Your task to perform on an android device: What is the capital of China? Image 0: 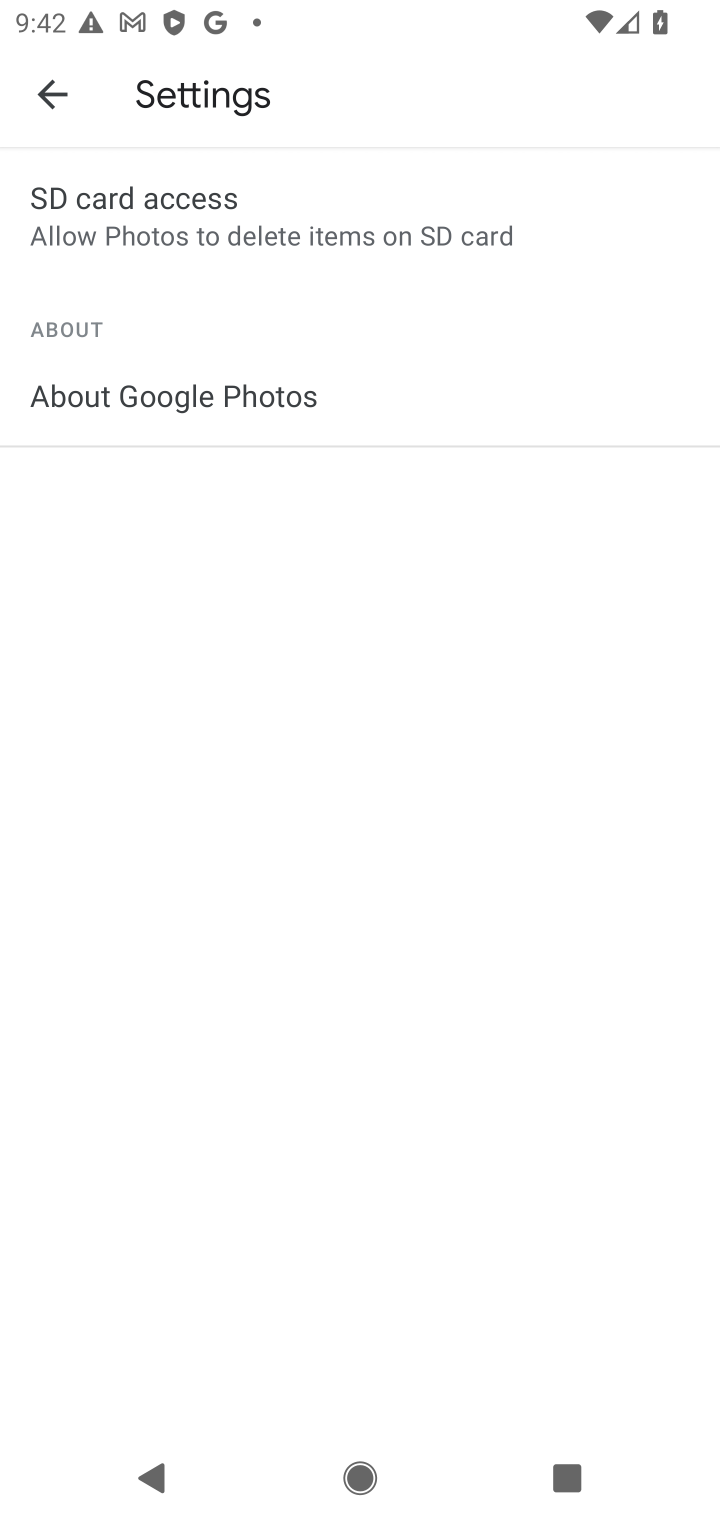
Step 0: press home button
Your task to perform on an android device: What is the capital of China? Image 1: 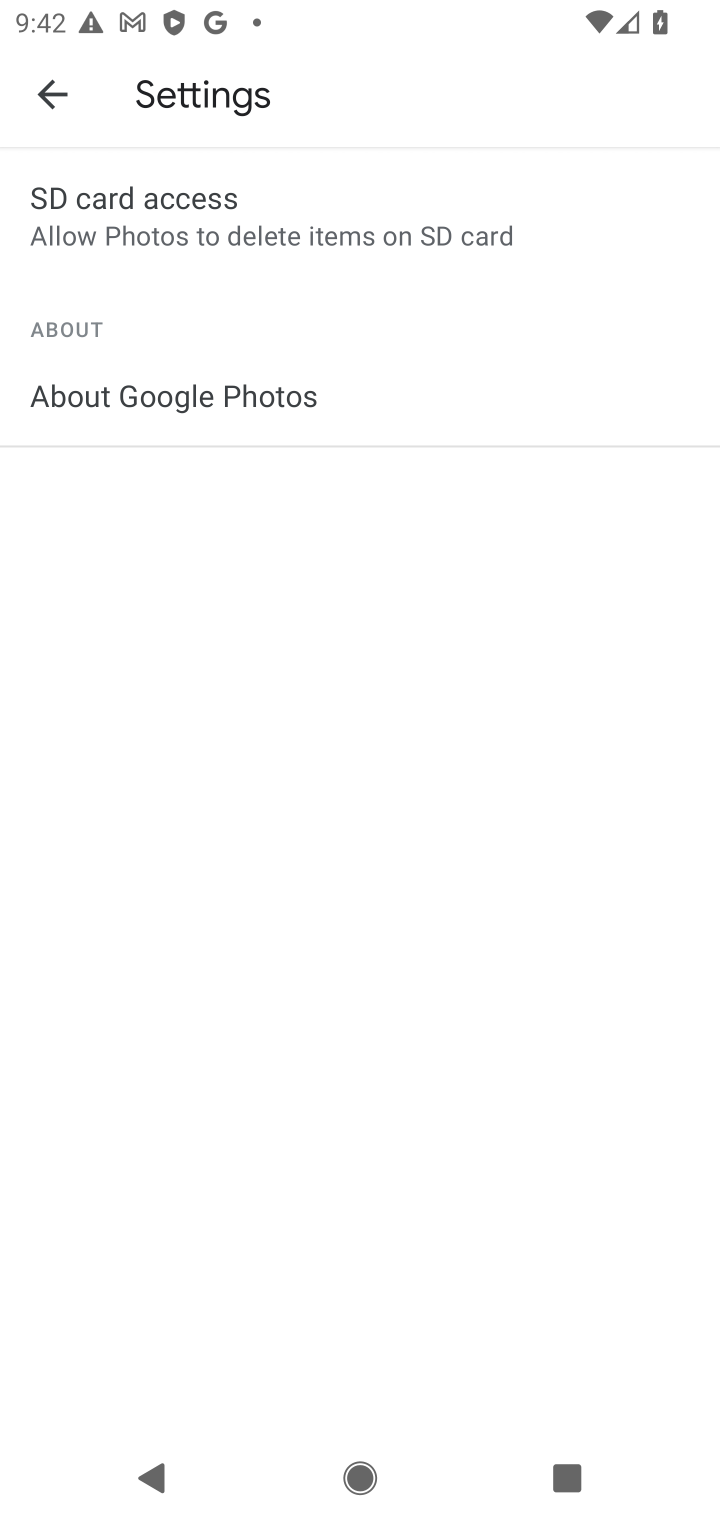
Step 1: press home button
Your task to perform on an android device: What is the capital of China? Image 2: 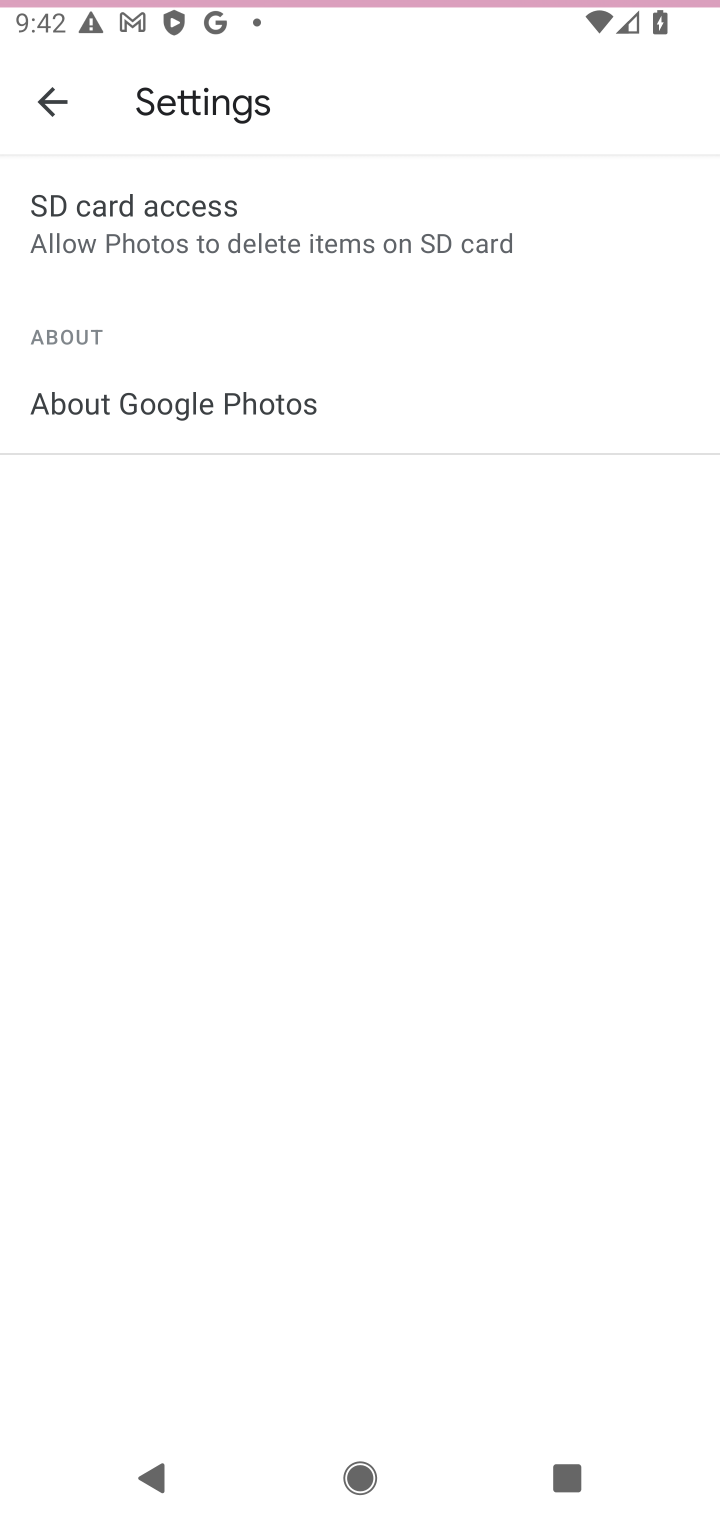
Step 2: press home button
Your task to perform on an android device: What is the capital of China? Image 3: 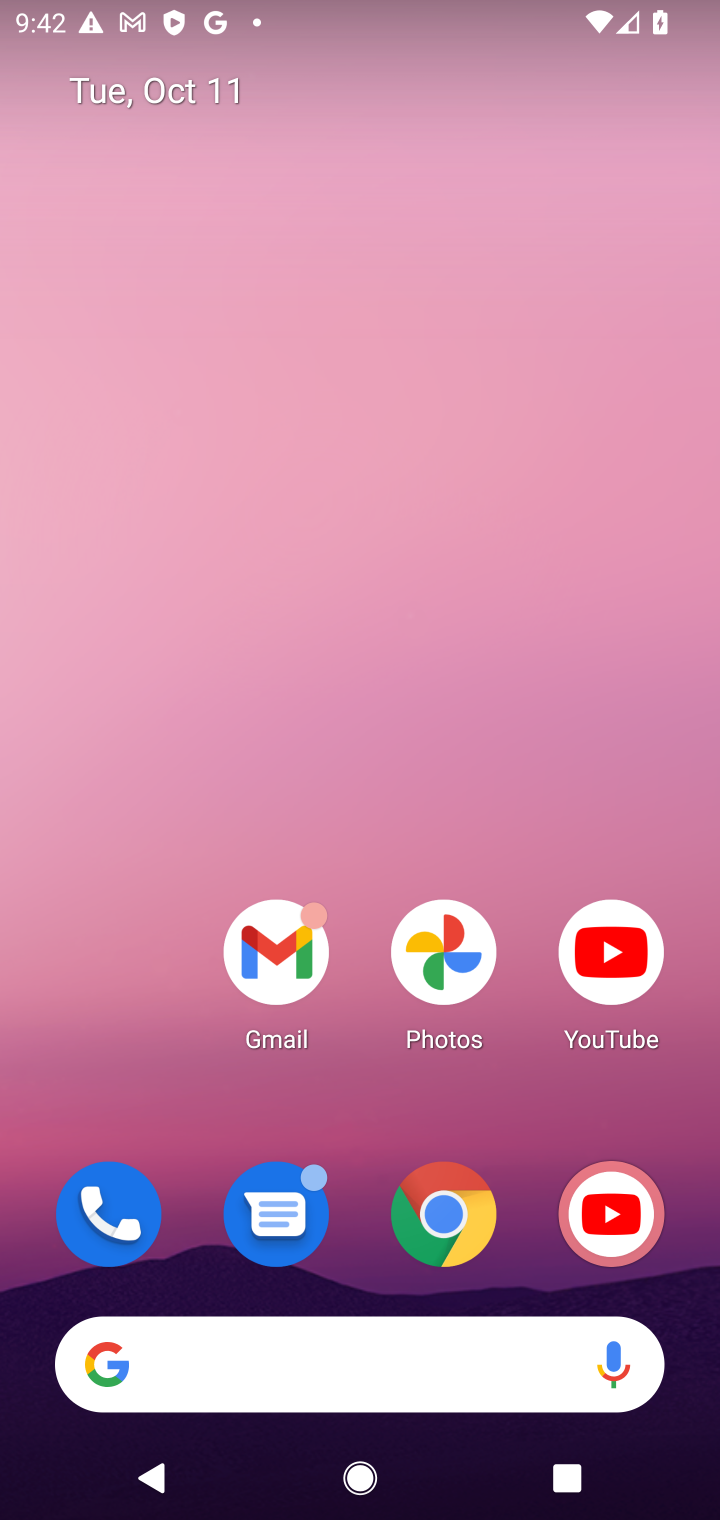
Step 3: drag from (528, 1106) to (532, 123)
Your task to perform on an android device: What is the capital of China? Image 4: 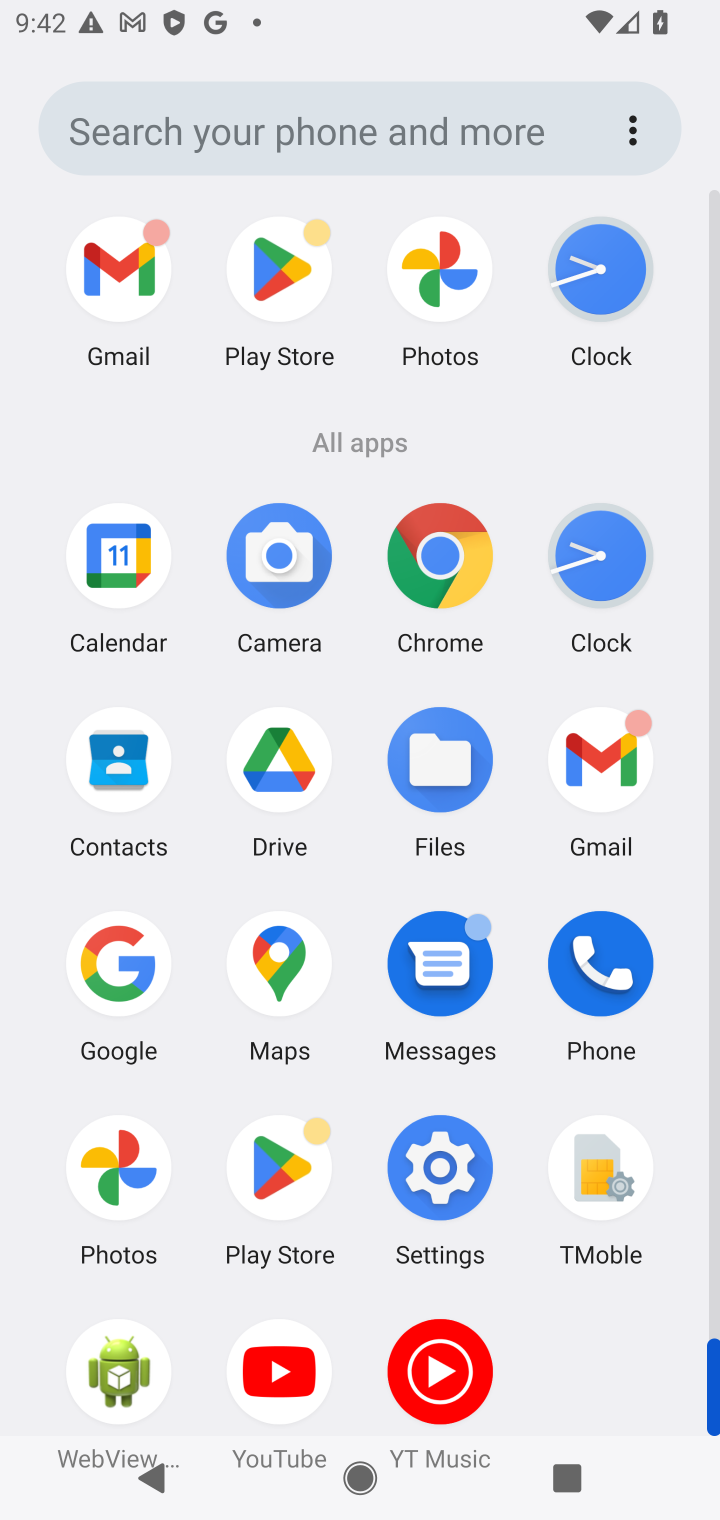
Step 4: click (433, 556)
Your task to perform on an android device: What is the capital of China? Image 5: 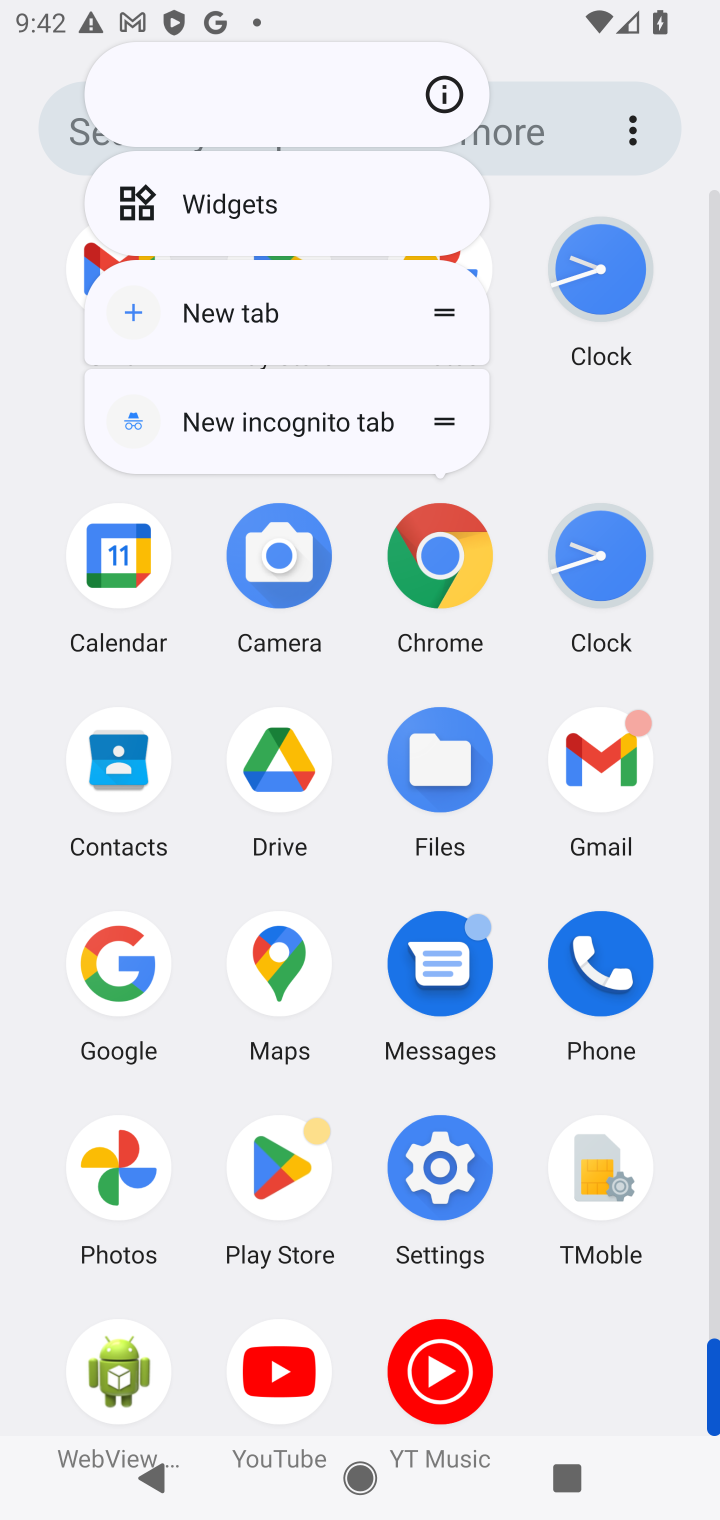
Step 5: click (437, 558)
Your task to perform on an android device: What is the capital of China? Image 6: 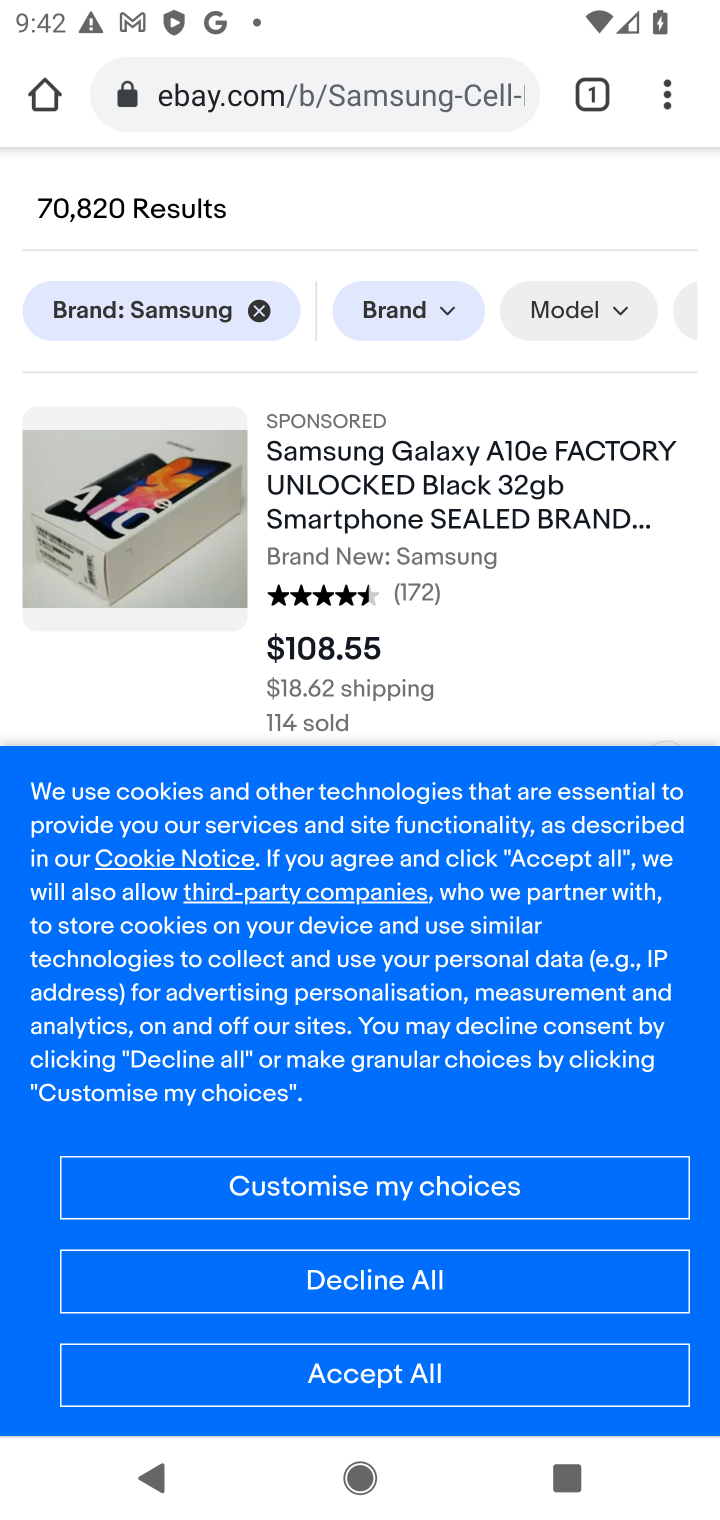
Step 6: click (341, 81)
Your task to perform on an android device: What is the capital of China? Image 7: 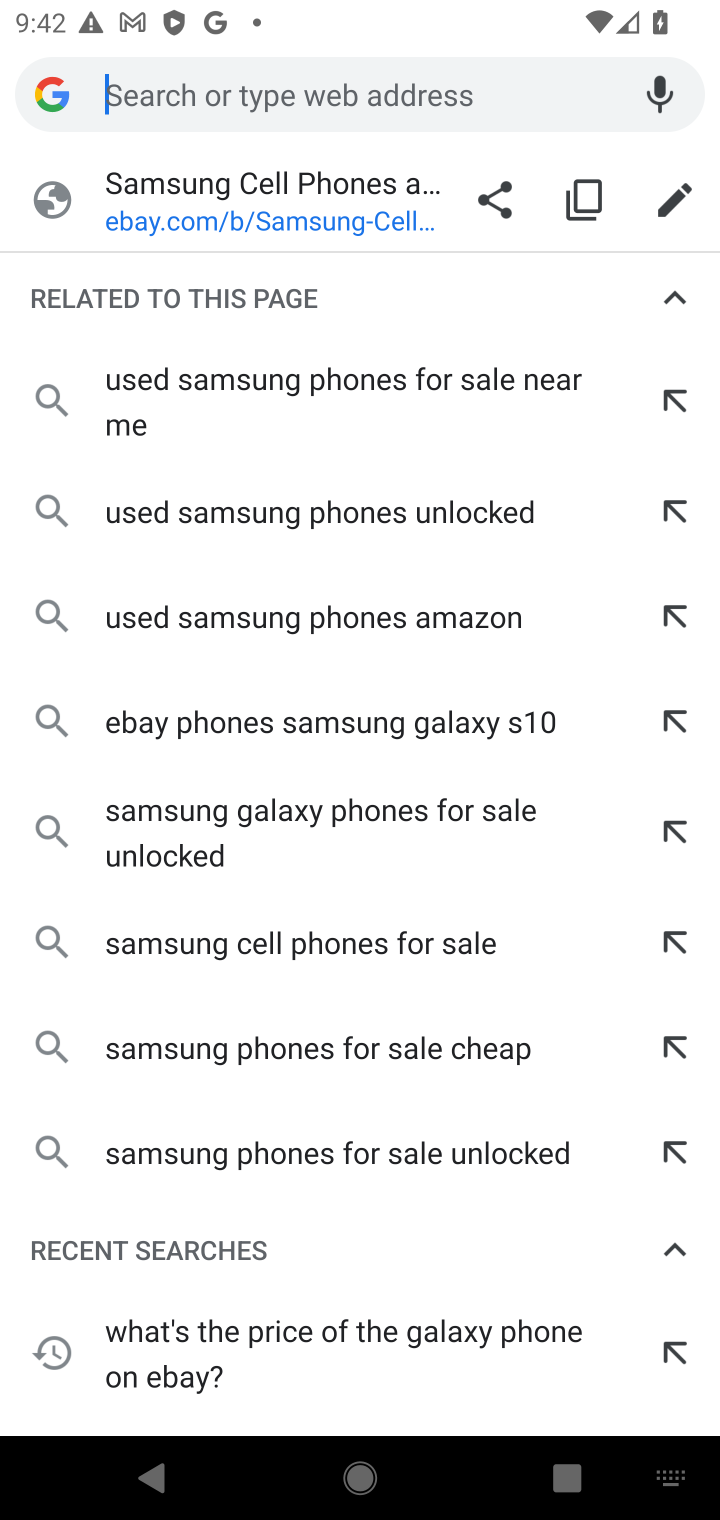
Step 7: type "What is the capital of China?"
Your task to perform on an android device: What is the capital of China? Image 8: 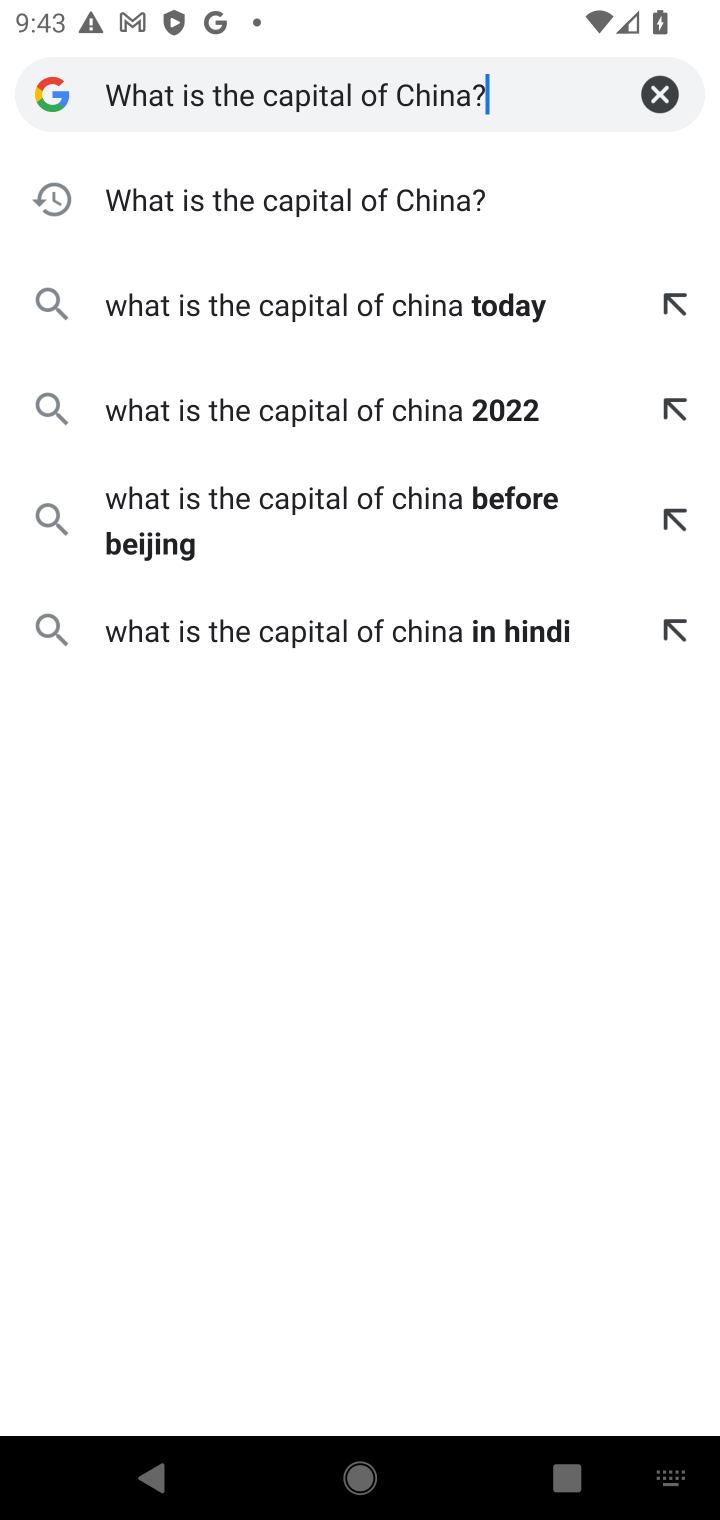
Step 8: press enter
Your task to perform on an android device: What is the capital of China? Image 9: 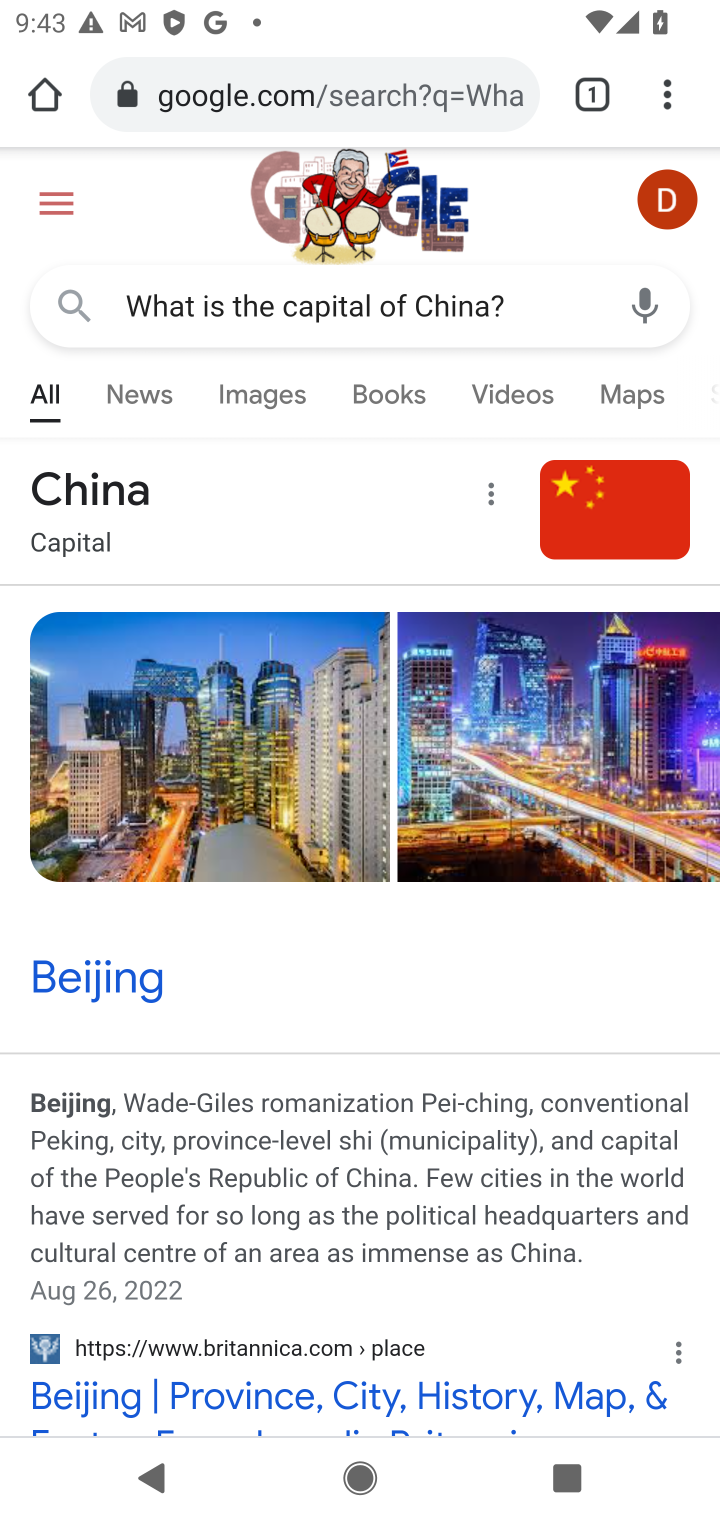
Step 9: task complete